Your task to perform on an android device: Open Chrome and go to settings Image 0: 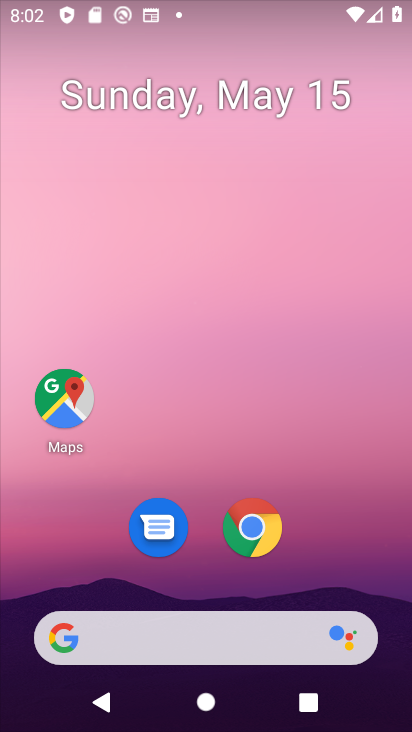
Step 0: click (236, 531)
Your task to perform on an android device: Open Chrome and go to settings Image 1: 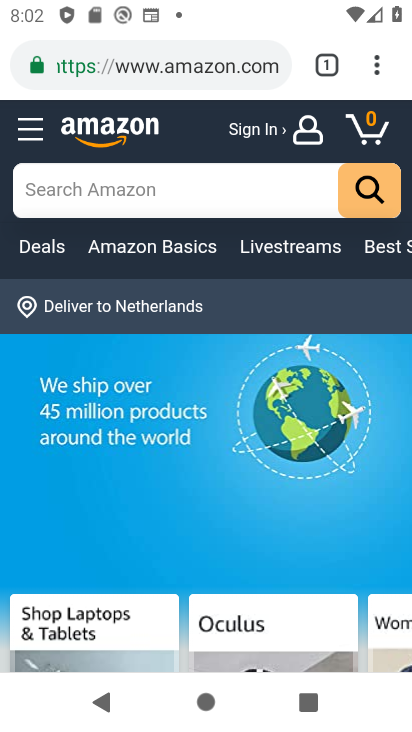
Step 1: task complete